Your task to perform on an android device: Find coffee shops on Maps Image 0: 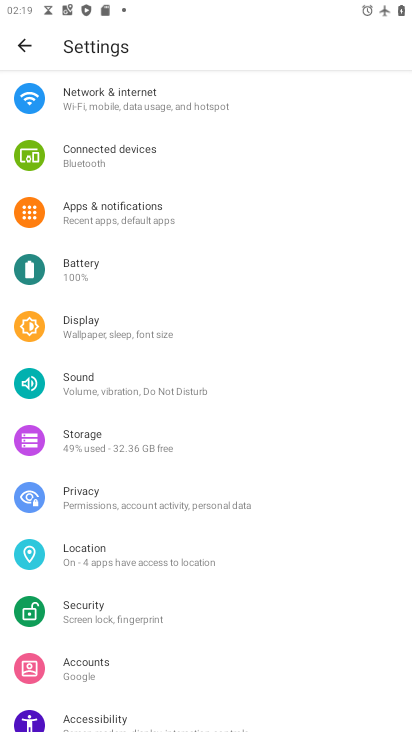
Step 0: press home button
Your task to perform on an android device: Find coffee shops on Maps Image 1: 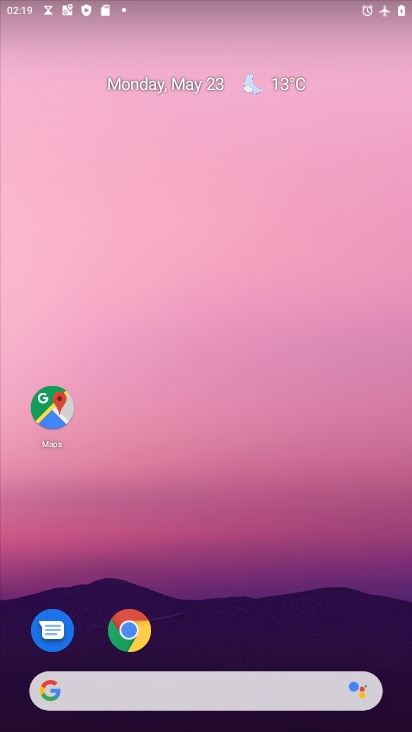
Step 1: click (58, 402)
Your task to perform on an android device: Find coffee shops on Maps Image 2: 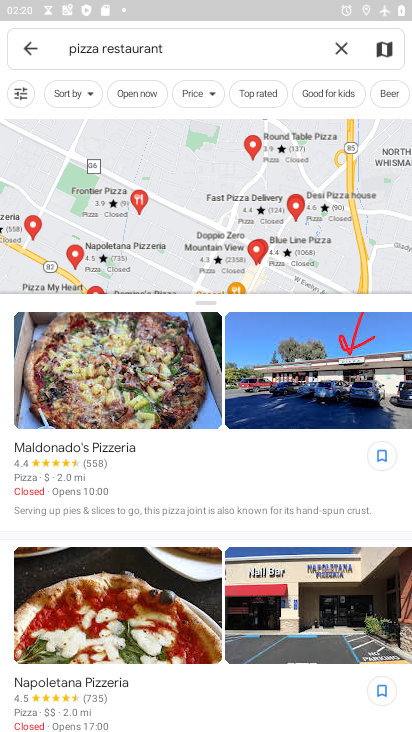
Step 2: click (346, 41)
Your task to perform on an android device: Find coffee shops on Maps Image 3: 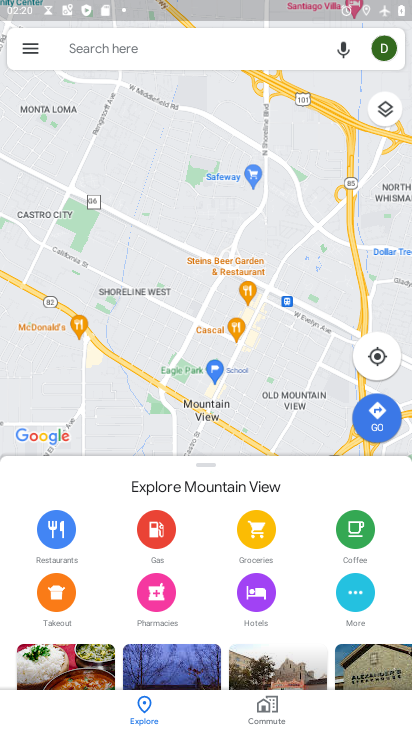
Step 3: click (154, 47)
Your task to perform on an android device: Find coffee shops on Maps Image 4: 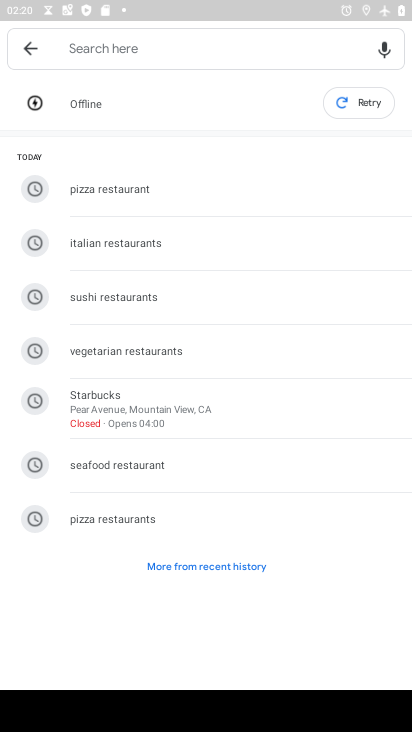
Step 4: click (153, 51)
Your task to perform on an android device: Find coffee shops on Maps Image 5: 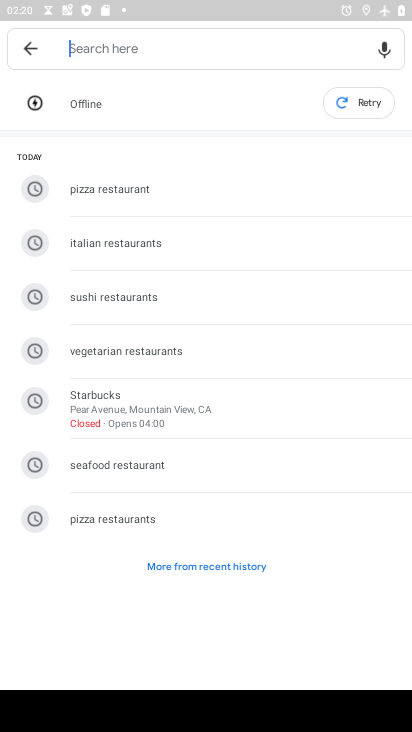
Step 5: type "coffee"
Your task to perform on an android device: Find coffee shops on Maps Image 6: 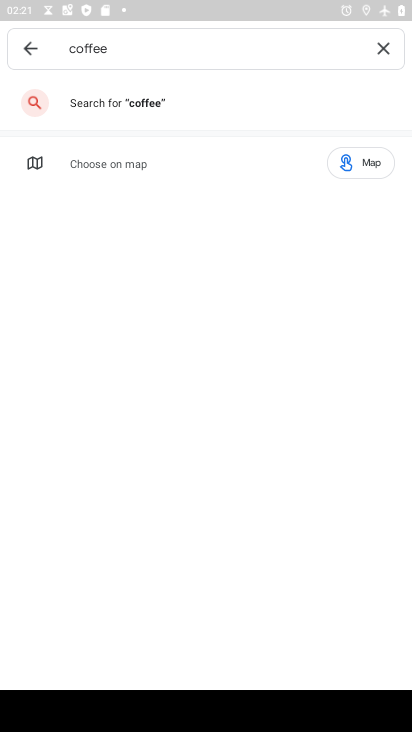
Step 6: click (171, 108)
Your task to perform on an android device: Find coffee shops on Maps Image 7: 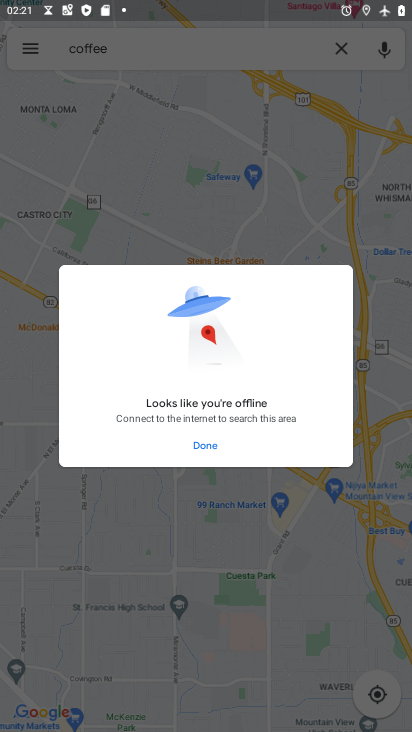
Step 7: task complete